Your task to perform on an android device: set the stopwatch Image 0: 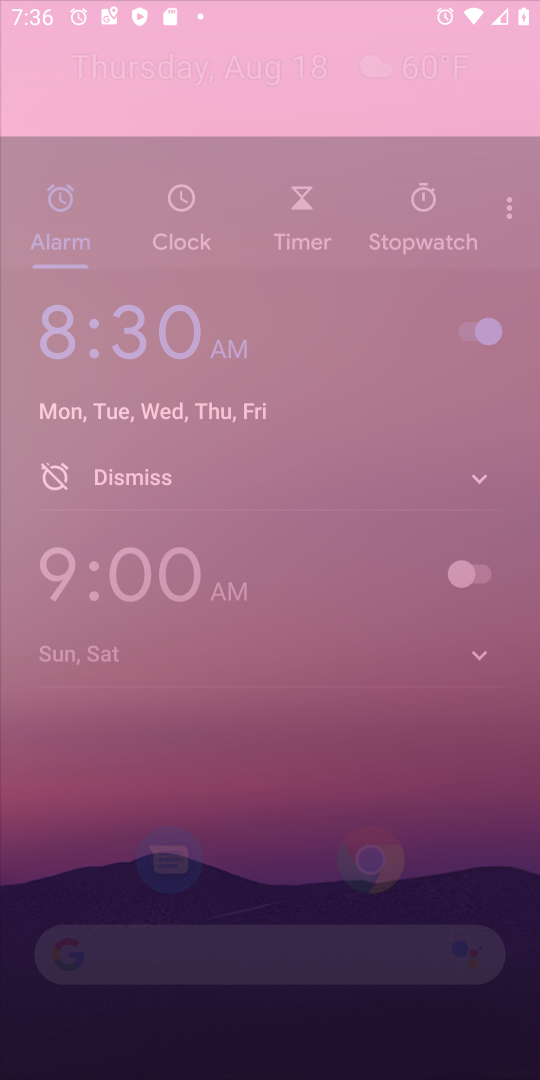
Step 0: press home button
Your task to perform on an android device: set the stopwatch Image 1: 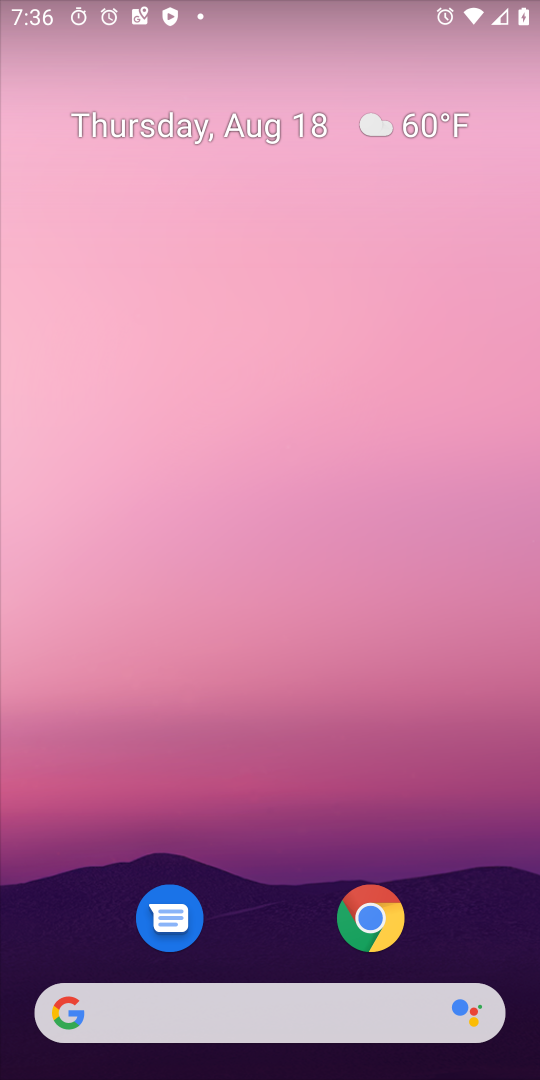
Step 1: drag from (268, 957) to (249, 89)
Your task to perform on an android device: set the stopwatch Image 2: 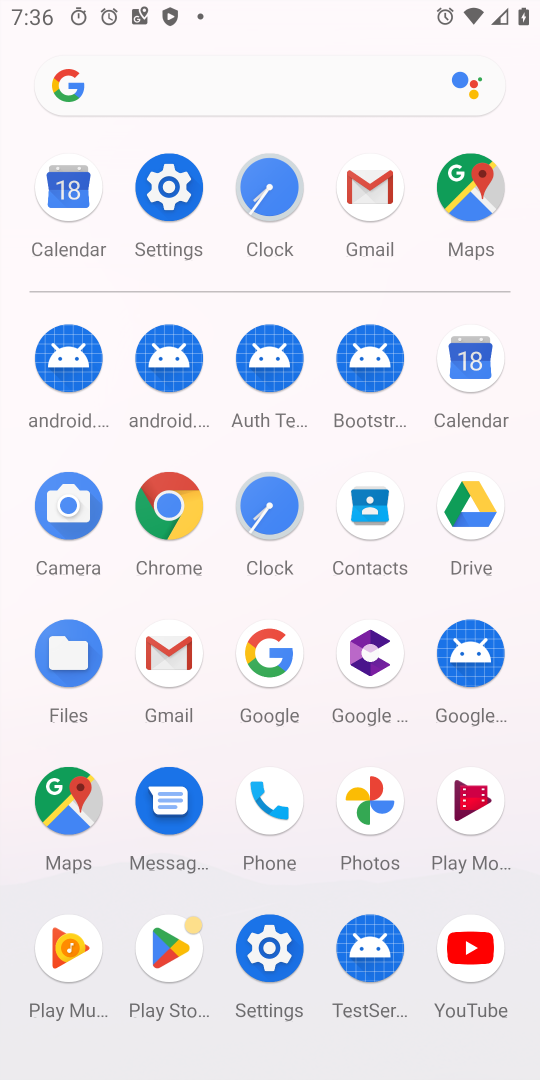
Step 2: click (271, 200)
Your task to perform on an android device: set the stopwatch Image 3: 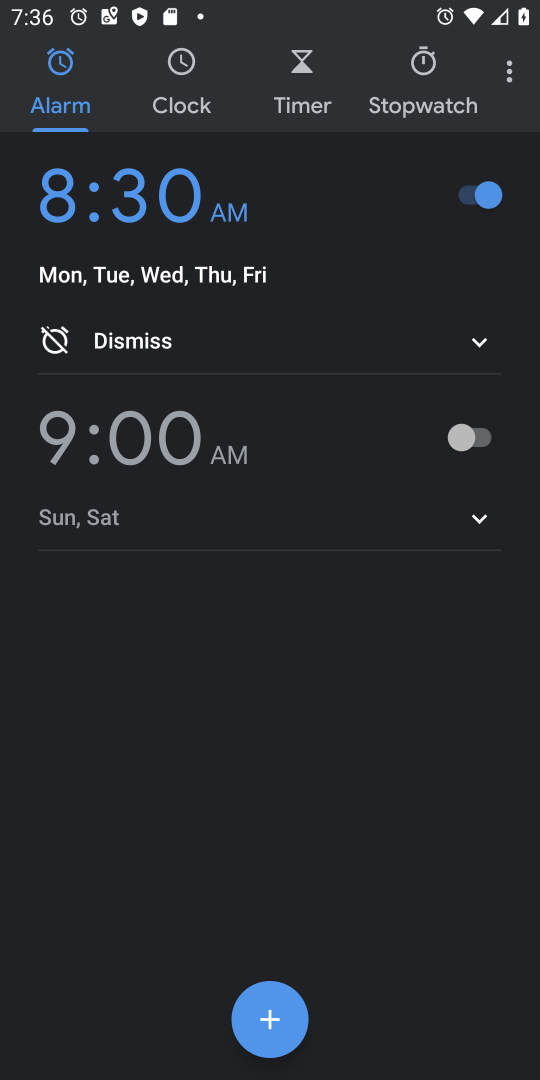
Step 3: click (422, 58)
Your task to perform on an android device: set the stopwatch Image 4: 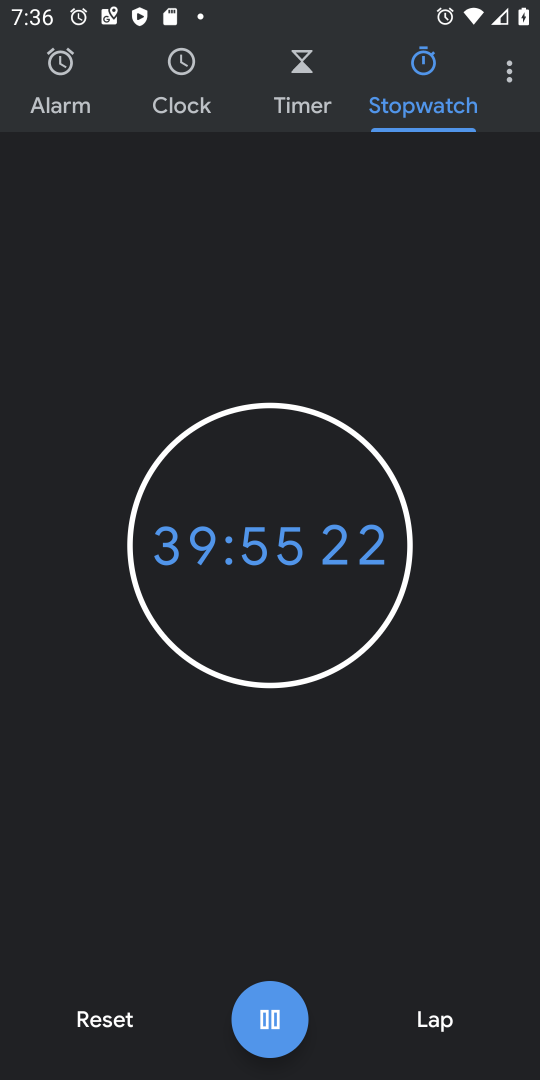
Step 4: task complete